Your task to perform on an android device: open the mobile data screen to see how much data has been used Image 0: 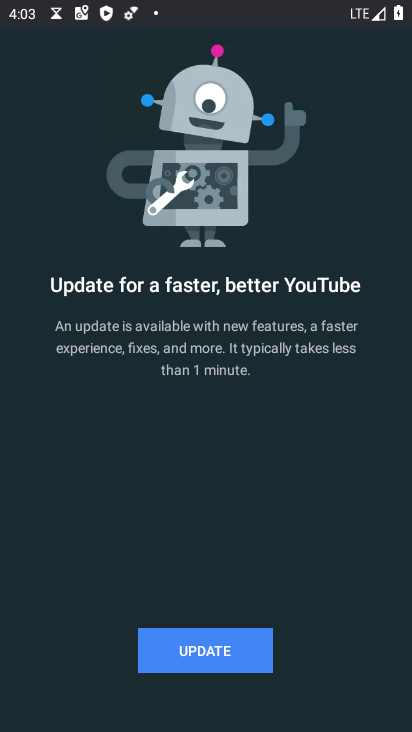
Step 0: press home button
Your task to perform on an android device: open the mobile data screen to see how much data has been used Image 1: 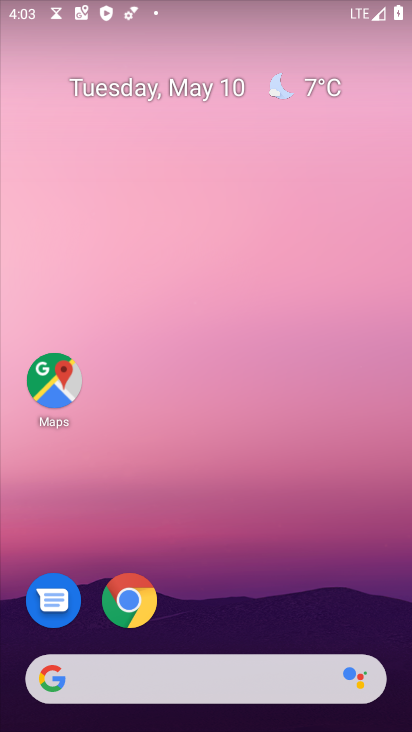
Step 1: drag from (305, 497) to (325, 125)
Your task to perform on an android device: open the mobile data screen to see how much data has been used Image 2: 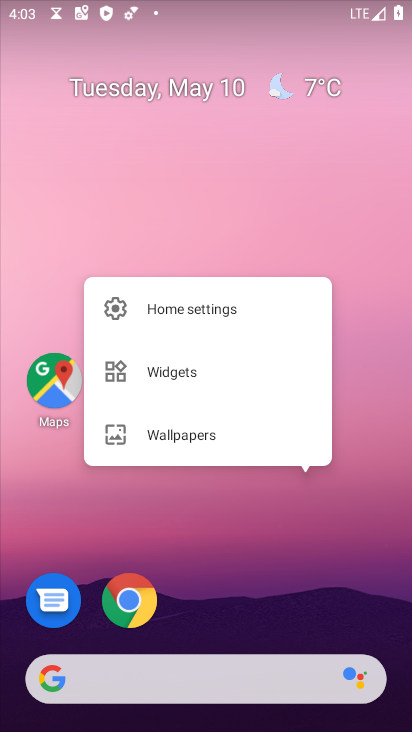
Step 2: drag from (362, 149) to (200, 208)
Your task to perform on an android device: open the mobile data screen to see how much data has been used Image 3: 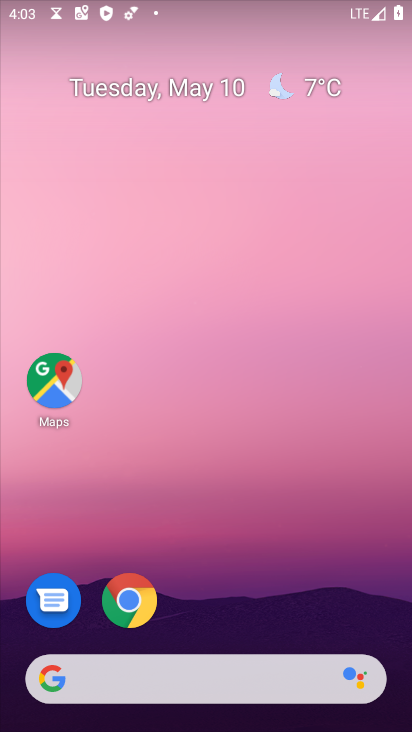
Step 3: drag from (206, 608) to (262, 13)
Your task to perform on an android device: open the mobile data screen to see how much data has been used Image 4: 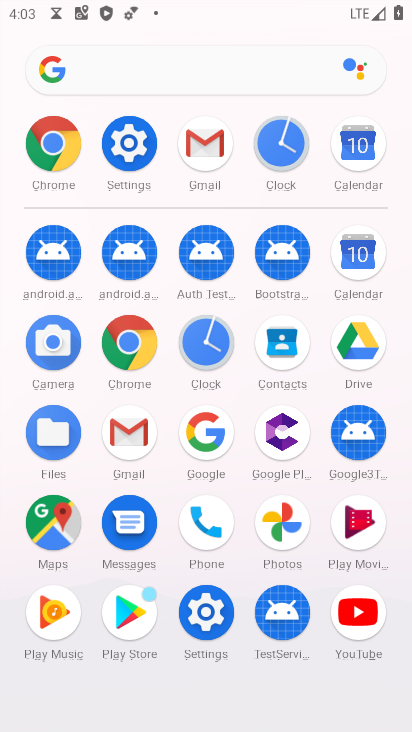
Step 4: click (118, 137)
Your task to perform on an android device: open the mobile data screen to see how much data has been used Image 5: 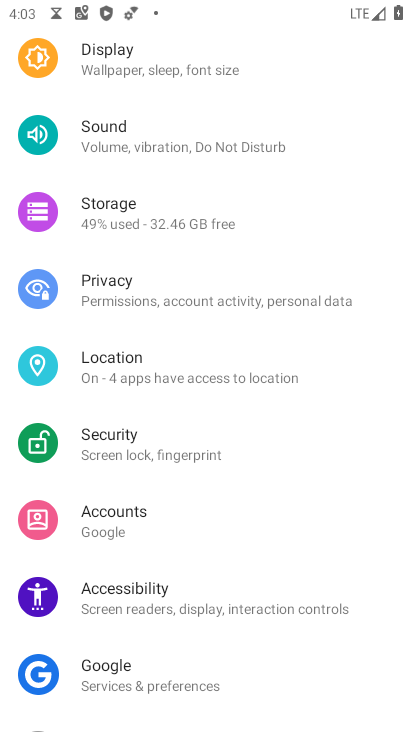
Step 5: drag from (98, 107) to (176, 634)
Your task to perform on an android device: open the mobile data screen to see how much data has been used Image 6: 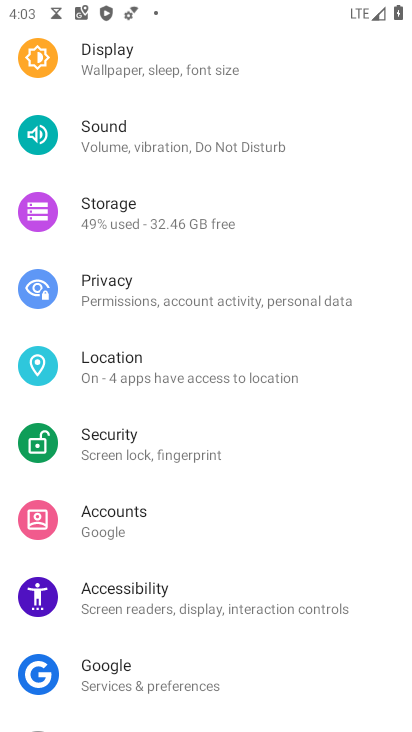
Step 6: drag from (207, 163) to (253, 567)
Your task to perform on an android device: open the mobile data screen to see how much data has been used Image 7: 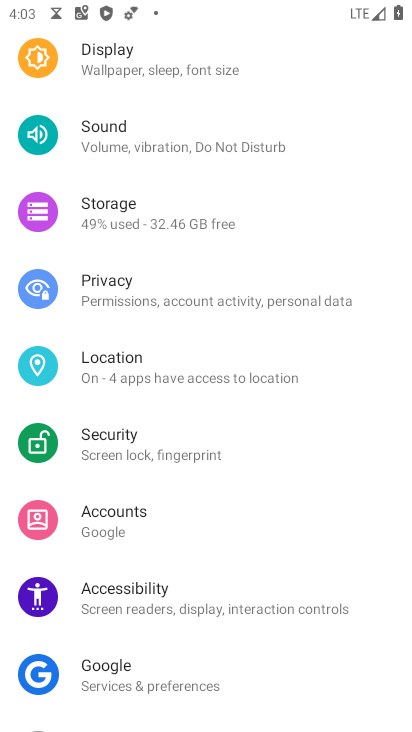
Step 7: drag from (259, 117) to (252, 683)
Your task to perform on an android device: open the mobile data screen to see how much data has been used Image 8: 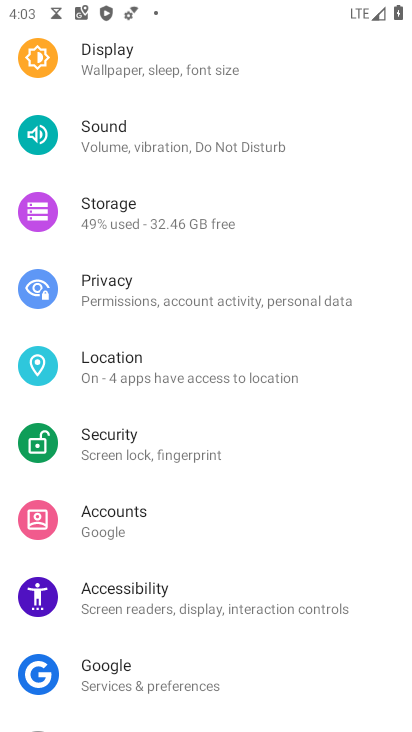
Step 8: drag from (217, 40) to (178, 582)
Your task to perform on an android device: open the mobile data screen to see how much data has been used Image 9: 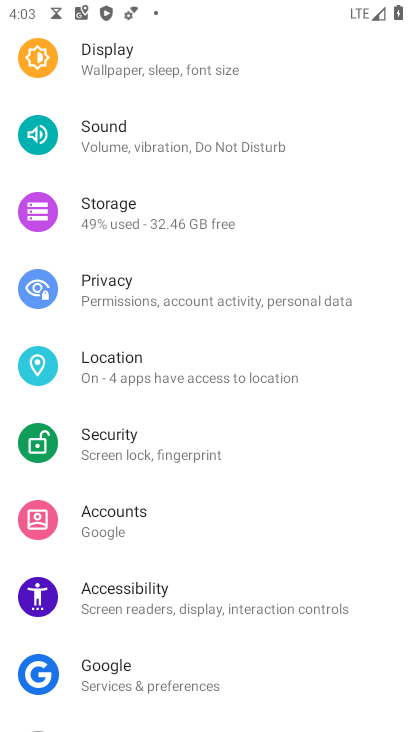
Step 9: drag from (272, 108) to (277, 728)
Your task to perform on an android device: open the mobile data screen to see how much data has been used Image 10: 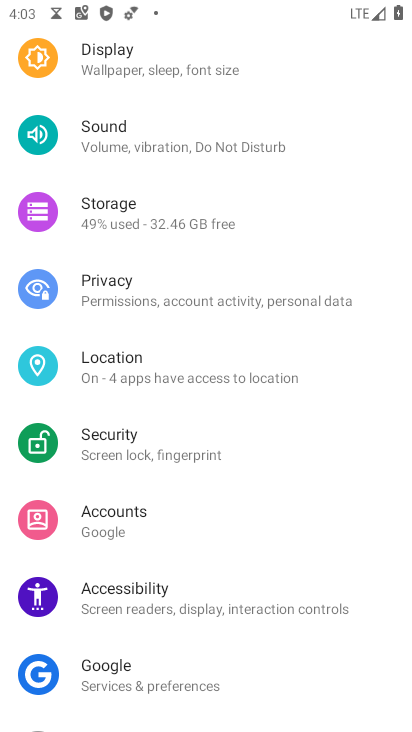
Step 10: drag from (220, 547) to (260, 290)
Your task to perform on an android device: open the mobile data screen to see how much data has been used Image 11: 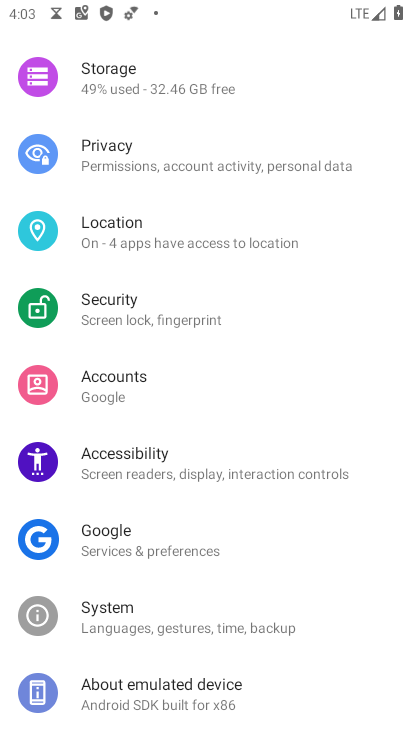
Step 11: drag from (227, 450) to (195, 685)
Your task to perform on an android device: open the mobile data screen to see how much data has been used Image 12: 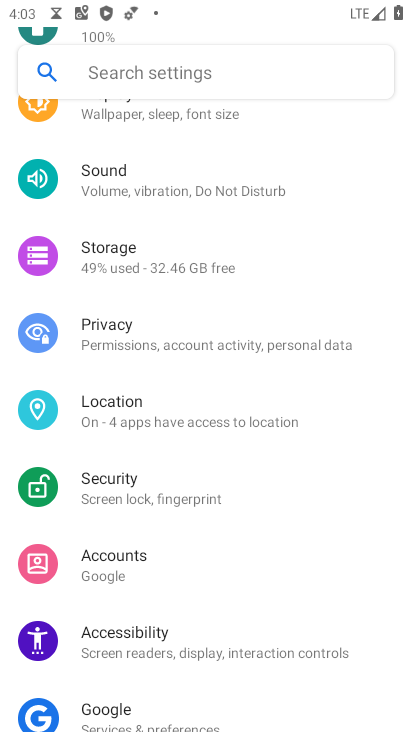
Step 12: drag from (188, 137) to (129, 626)
Your task to perform on an android device: open the mobile data screen to see how much data has been used Image 13: 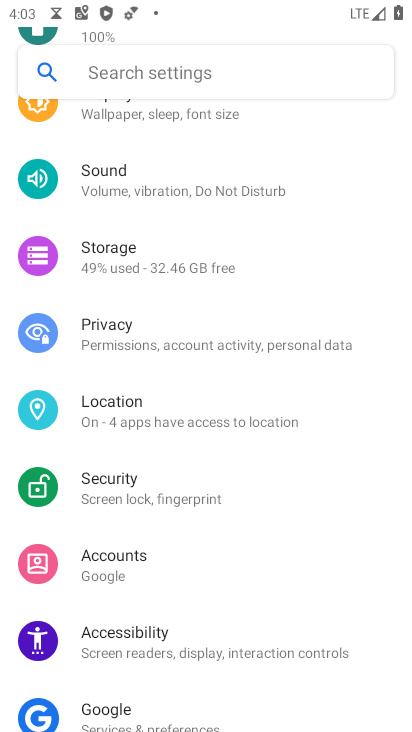
Step 13: drag from (239, 147) to (306, 686)
Your task to perform on an android device: open the mobile data screen to see how much data has been used Image 14: 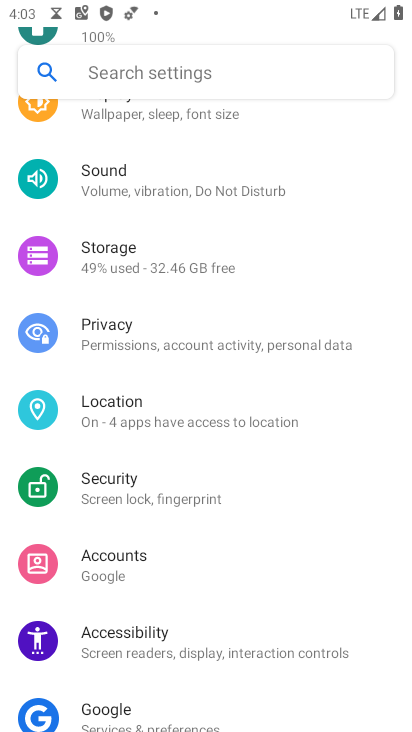
Step 14: press home button
Your task to perform on an android device: open the mobile data screen to see how much data has been used Image 15: 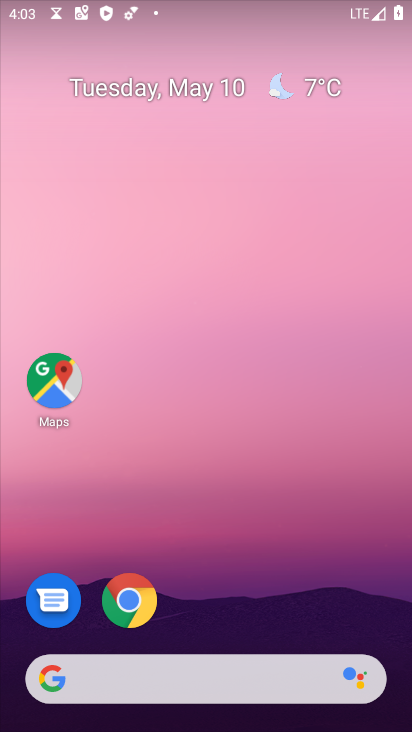
Step 15: drag from (282, 576) to (333, 230)
Your task to perform on an android device: open the mobile data screen to see how much data has been used Image 16: 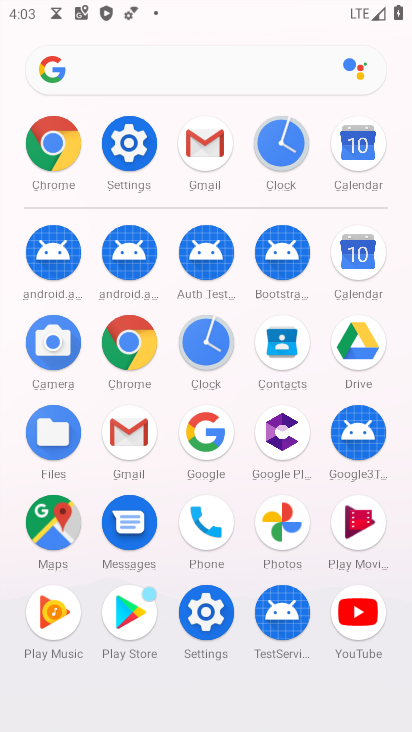
Step 16: click (122, 155)
Your task to perform on an android device: open the mobile data screen to see how much data has been used Image 17: 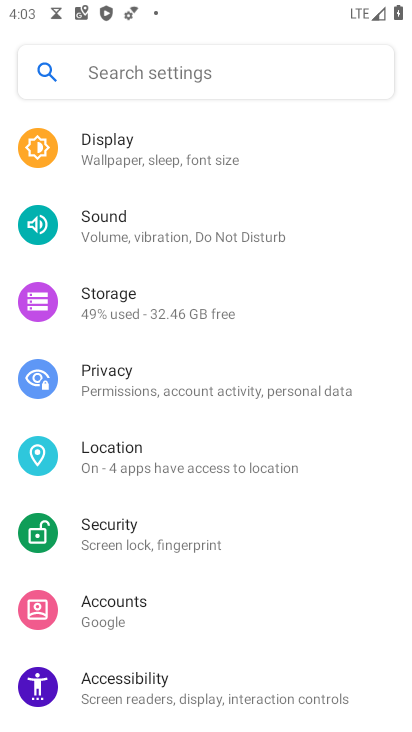
Step 17: drag from (166, 145) to (235, 666)
Your task to perform on an android device: open the mobile data screen to see how much data has been used Image 18: 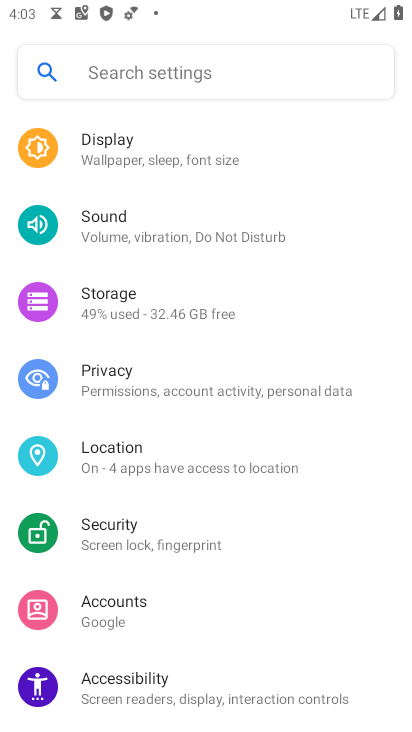
Step 18: drag from (271, 179) to (278, 625)
Your task to perform on an android device: open the mobile data screen to see how much data has been used Image 19: 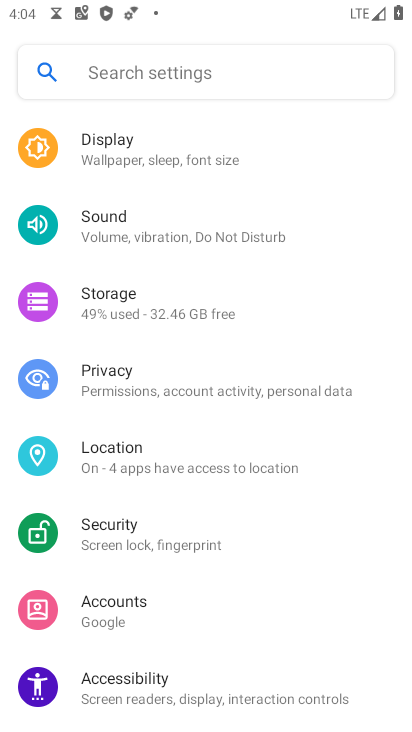
Step 19: drag from (323, 181) to (291, 634)
Your task to perform on an android device: open the mobile data screen to see how much data has been used Image 20: 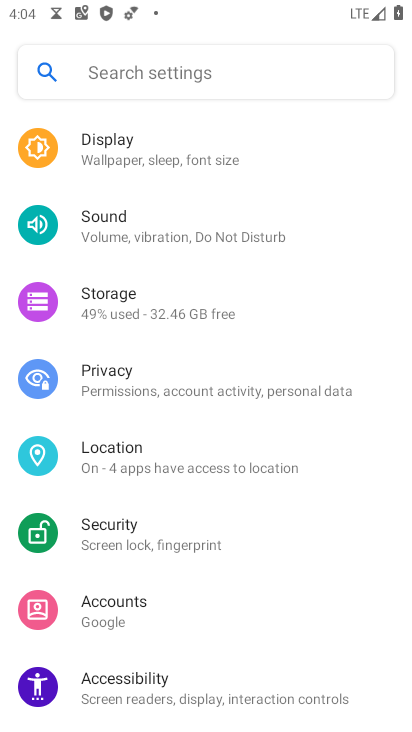
Step 20: click (199, 58)
Your task to perform on an android device: open the mobile data screen to see how much data has been used Image 21: 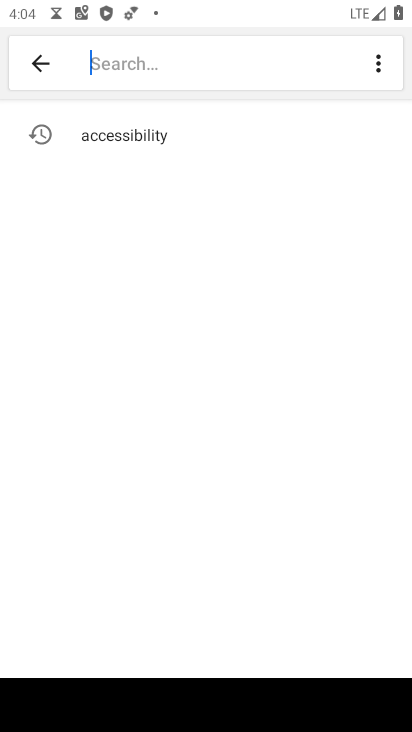
Step 21: type "mobile data"
Your task to perform on an android device: open the mobile data screen to see how much data has been used Image 22: 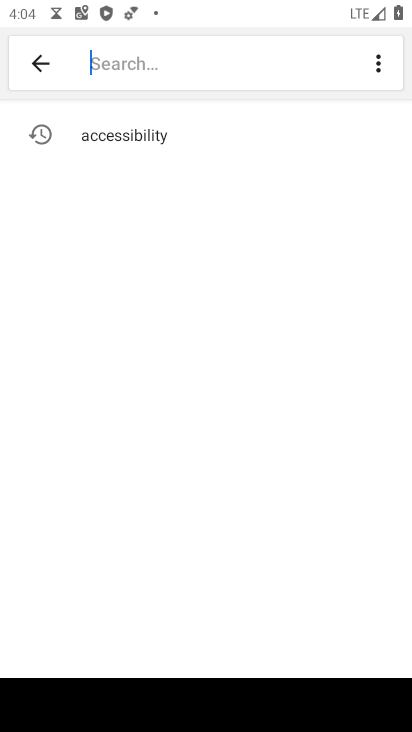
Step 22: click (282, 61)
Your task to perform on an android device: open the mobile data screen to see how much data has been used Image 23: 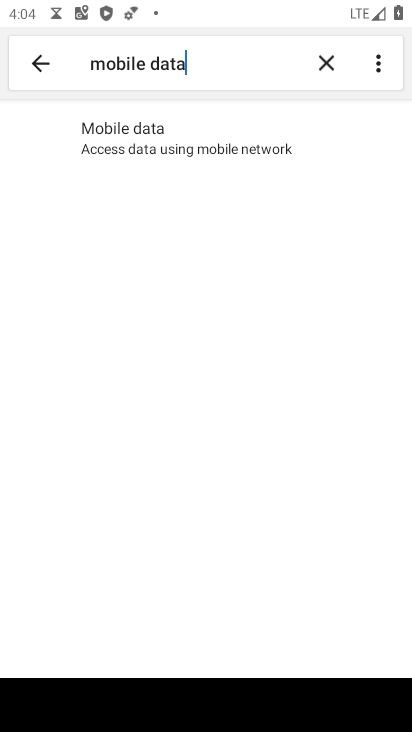
Step 23: click (252, 139)
Your task to perform on an android device: open the mobile data screen to see how much data has been used Image 24: 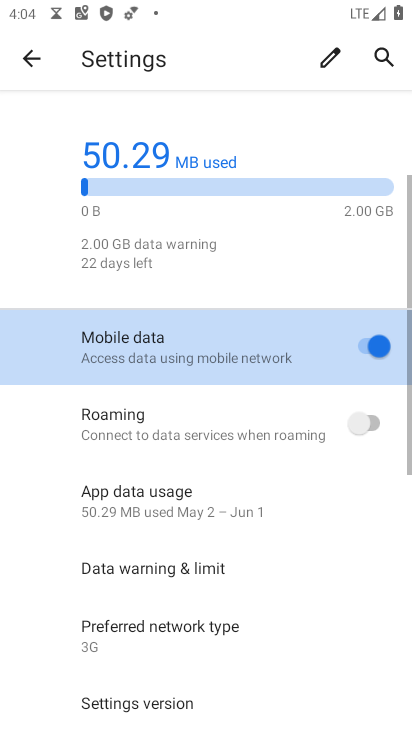
Step 24: task complete